Your task to perform on an android device: snooze an email in the gmail app Image 0: 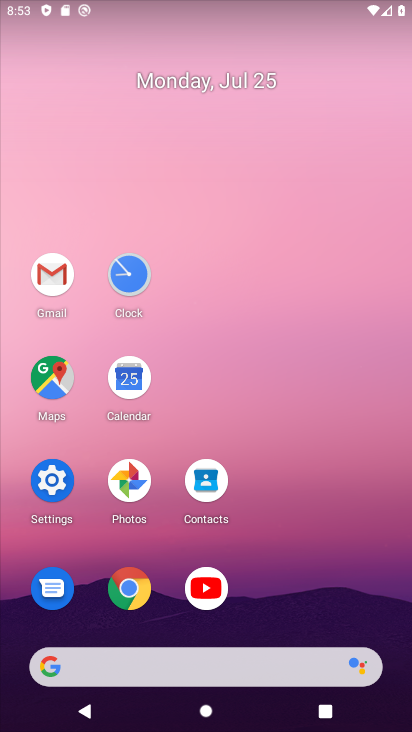
Step 0: click (48, 276)
Your task to perform on an android device: snooze an email in the gmail app Image 1: 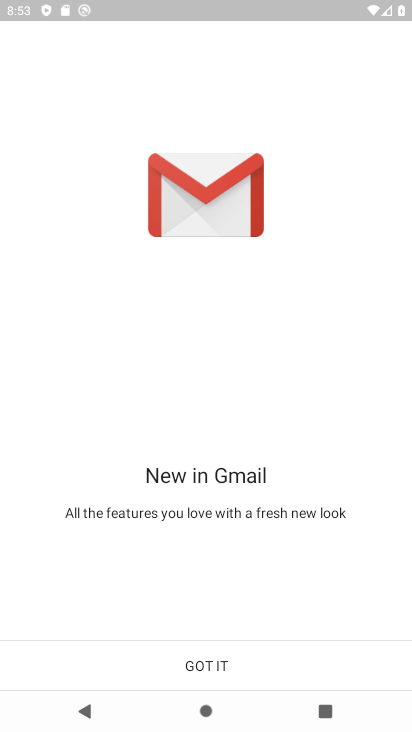
Step 1: click (205, 665)
Your task to perform on an android device: snooze an email in the gmail app Image 2: 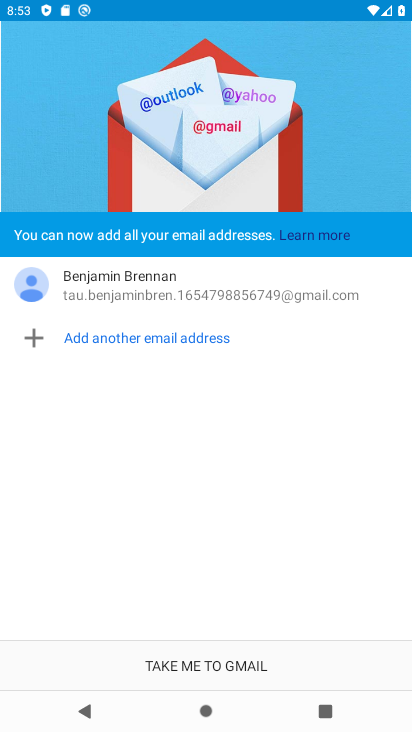
Step 2: click (205, 665)
Your task to perform on an android device: snooze an email in the gmail app Image 3: 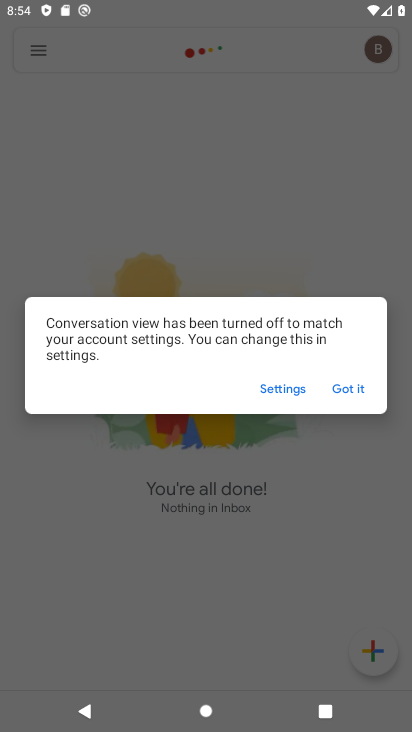
Step 3: click (355, 382)
Your task to perform on an android device: snooze an email in the gmail app Image 4: 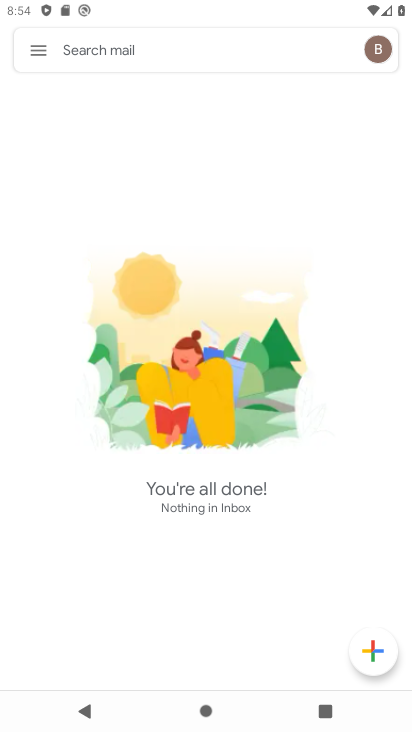
Step 4: click (36, 45)
Your task to perform on an android device: snooze an email in the gmail app Image 5: 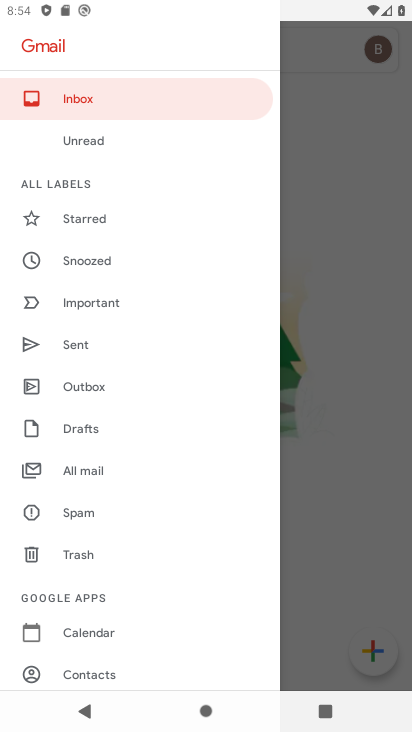
Step 5: click (79, 471)
Your task to perform on an android device: snooze an email in the gmail app Image 6: 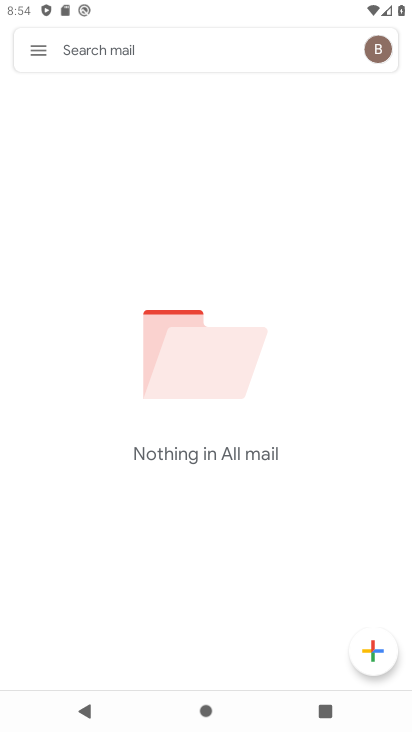
Step 6: task complete